Your task to perform on an android device: turn off javascript in the chrome app Image 0: 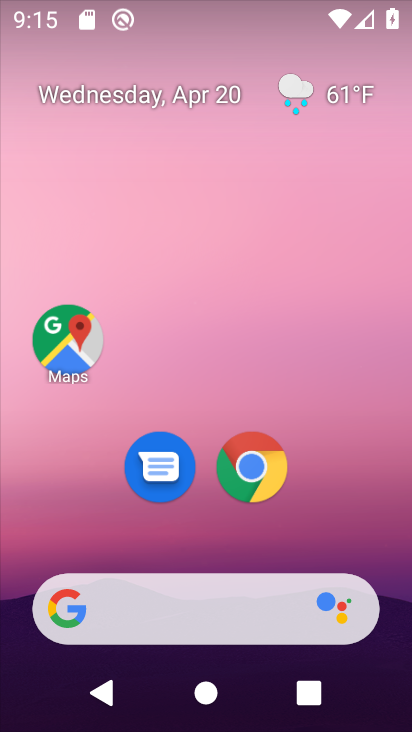
Step 0: drag from (289, 368) to (261, 27)
Your task to perform on an android device: turn off javascript in the chrome app Image 1: 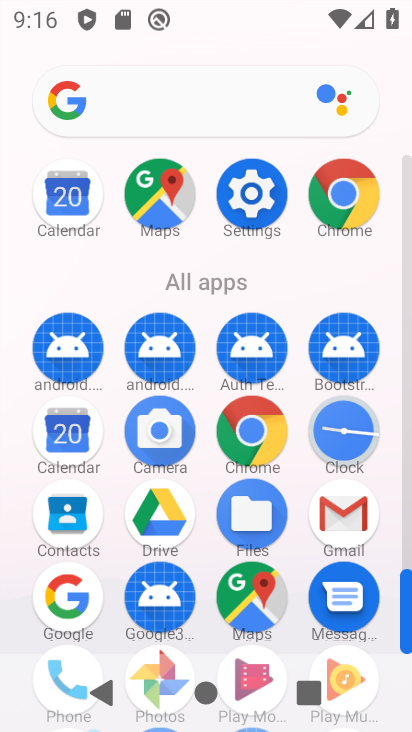
Step 1: click (249, 447)
Your task to perform on an android device: turn off javascript in the chrome app Image 2: 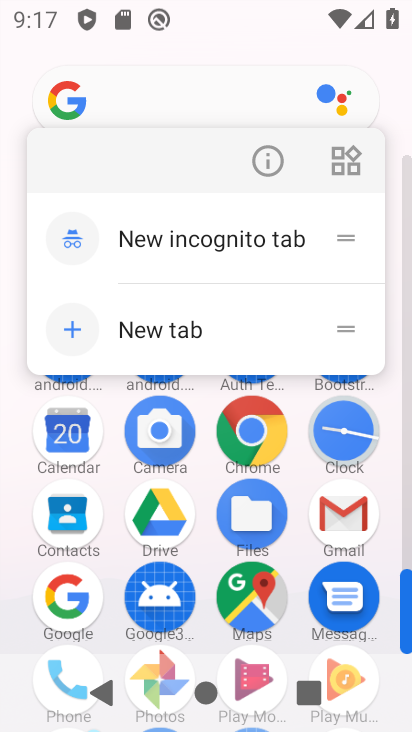
Step 2: click (248, 445)
Your task to perform on an android device: turn off javascript in the chrome app Image 3: 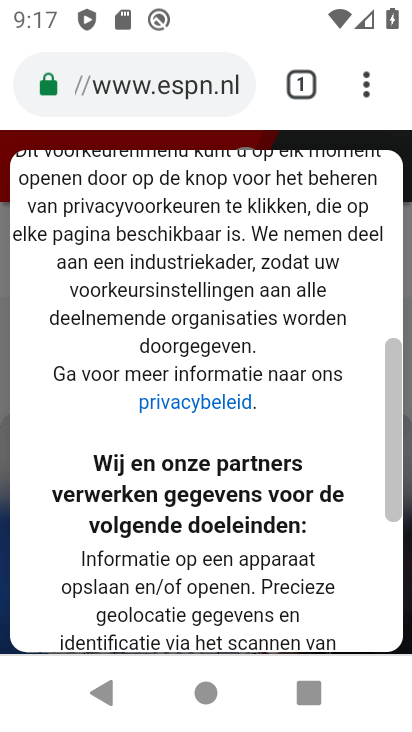
Step 3: click (372, 71)
Your task to perform on an android device: turn off javascript in the chrome app Image 4: 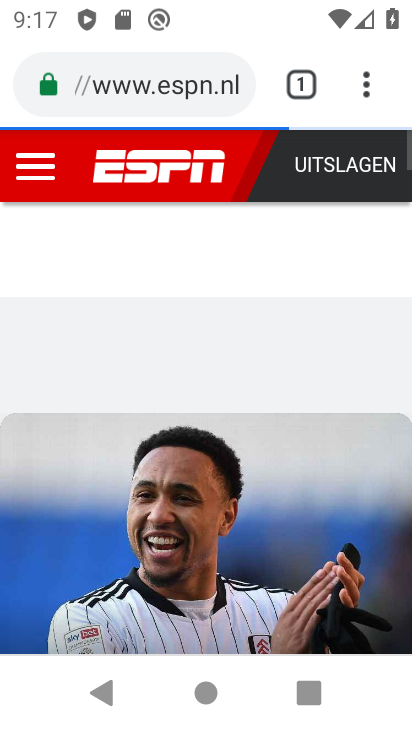
Step 4: drag from (366, 87) to (167, 506)
Your task to perform on an android device: turn off javascript in the chrome app Image 5: 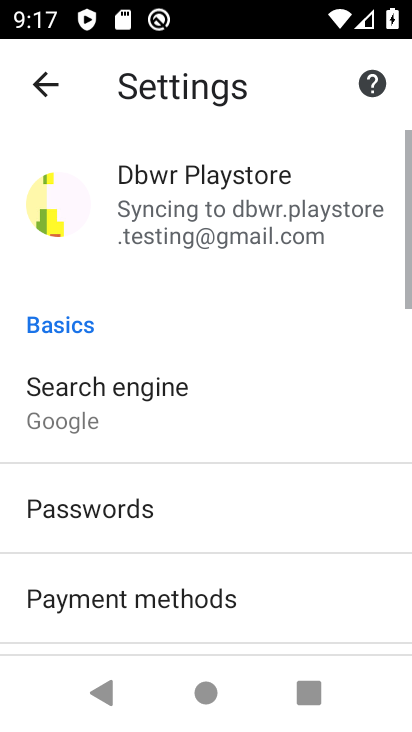
Step 5: drag from (178, 549) to (295, 2)
Your task to perform on an android device: turn off javascript in the chrome app Image 6: 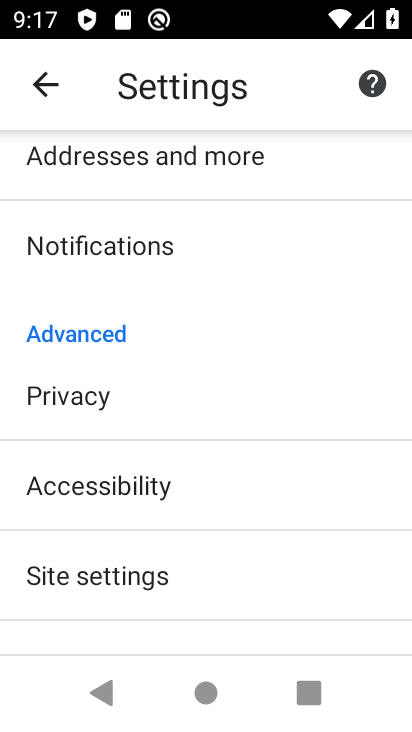
Step 6: click (112, 566)
Your task to perform on an android device: turn off javascript in the chrome app Image 7: 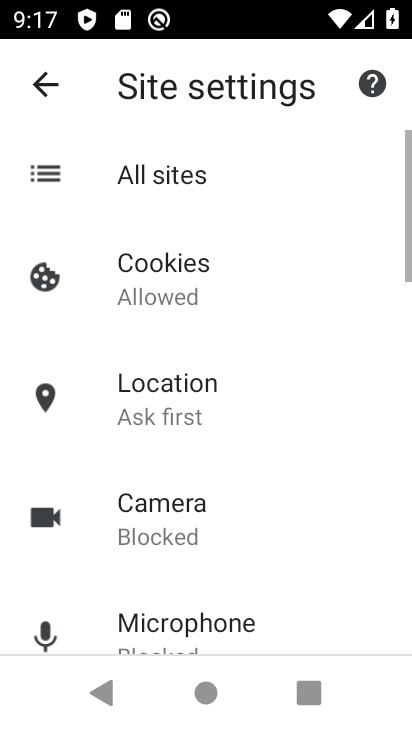
Step 7: drag from (214, 551) to (259, 160)
Your task to perform on an android device: turn off javascript in the chrome app Image 8: 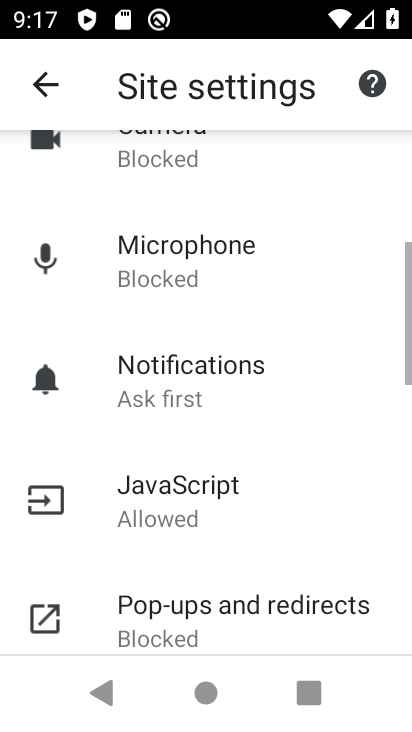
Step 8: click (198, 499)
Your task to perform on an android device: turn off javascript in the chrome app Image 9: 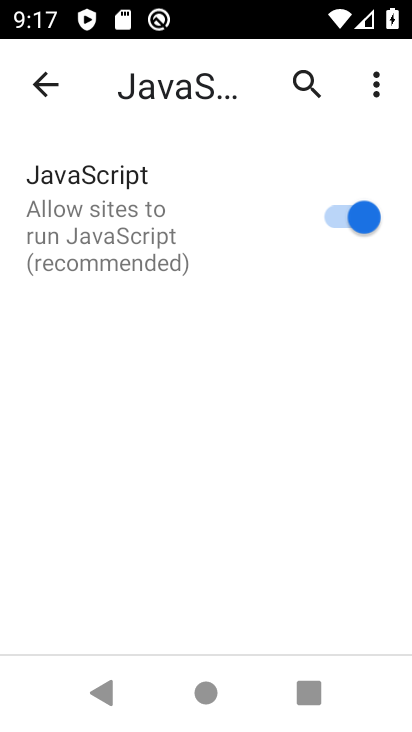
Step 9: click (343, 217)
Your task to perform on an android device: turn off javascript in the chrome app Image 10: 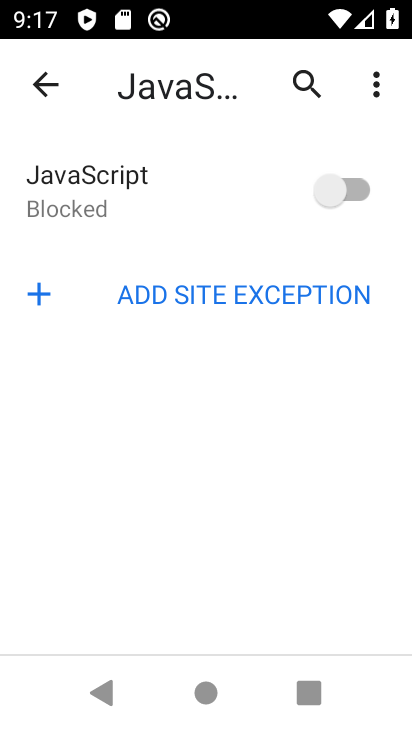
Step 10: task complete